Your task to perform on an android device: allow cookies in the chrome app Image 0: 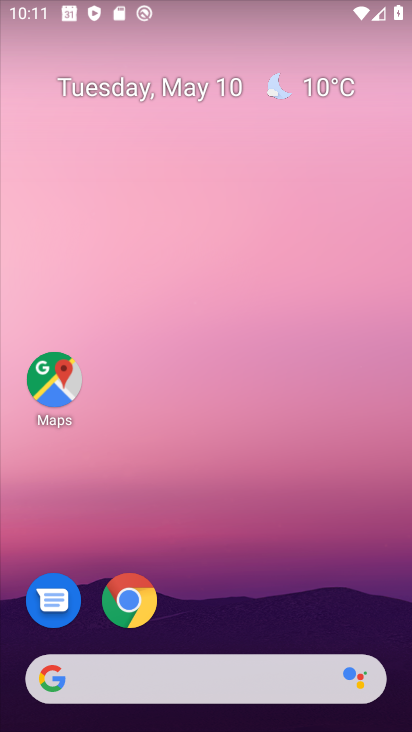
Step 0: drag from (293, 604) to (216, 103)
Your task to perform on an android device: allow cookies in the chrome app Image 1: 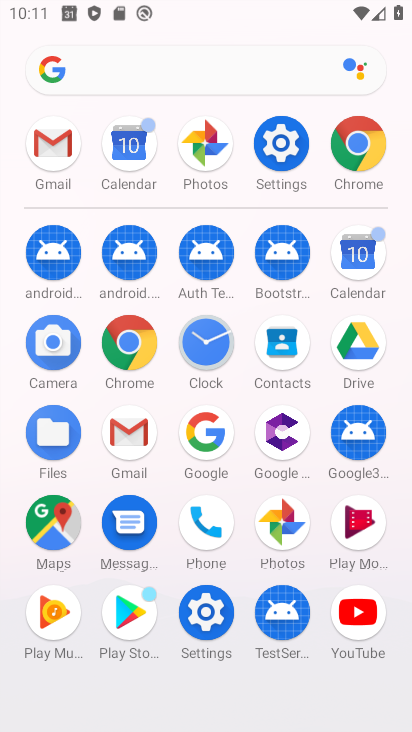
Step 1: click (381, 157)
Your task to perform on an android device: allow cookies in the chrome app Image 2: 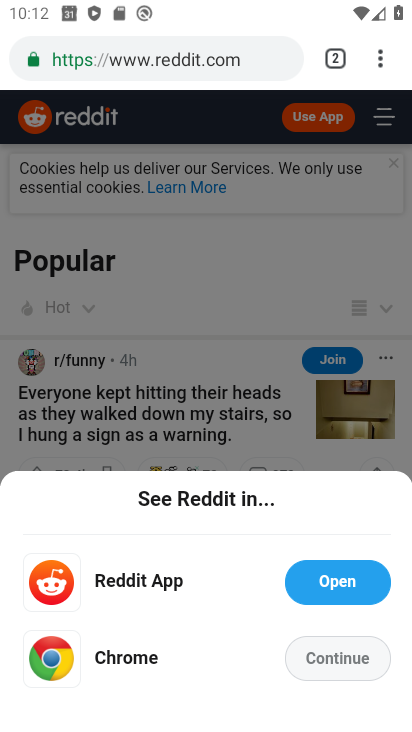
Step 2: drag from (376, 58) to (235, 637)
Your task to perform on an android device: allow cookies in the chrome app Image 3: 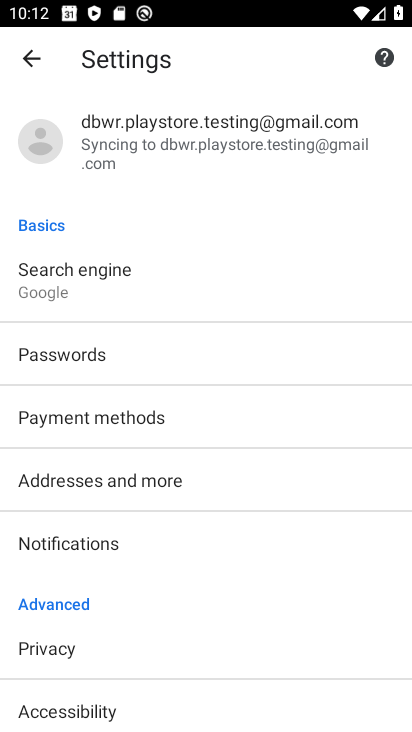
Step 3: drag from (234, 629) to (217, 241)
Your task to perform on an android device: allow cookies in the chrome app Image 4: 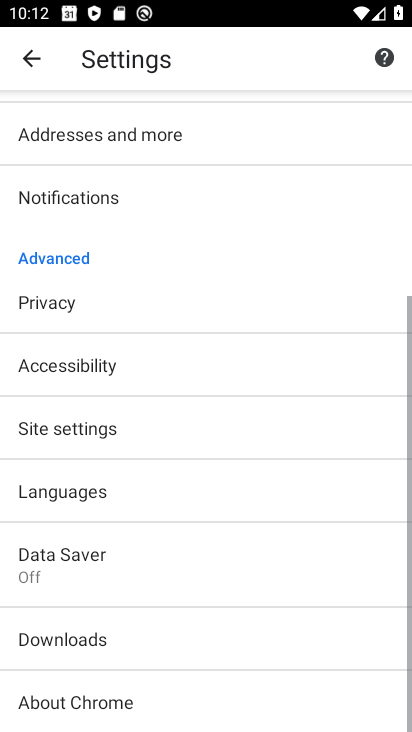
Step 4: click (125, 424)
Your task to perform on an android device: allow cookies in the chrome app Image 5: 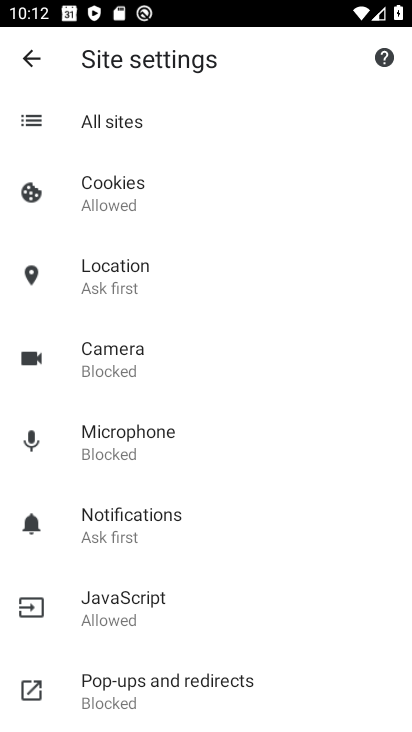
Step 5: click (139, 210)
Your task to perform on an android device: allow cookies in the chrome app Image 6: 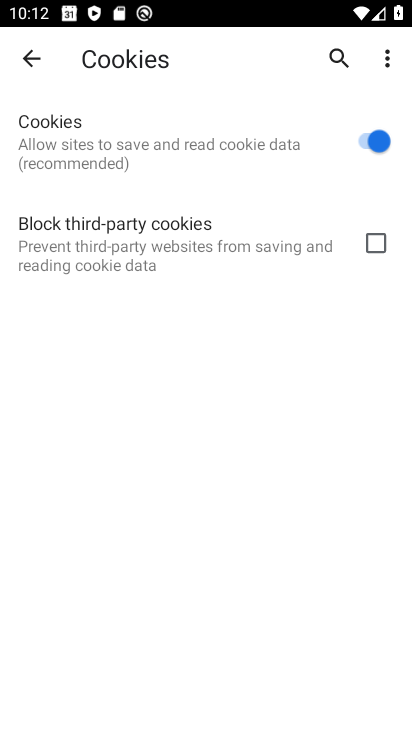
Step 6: task complete